Your task to perform on an android device: What's the weather going to be tomorrow? Image 0: 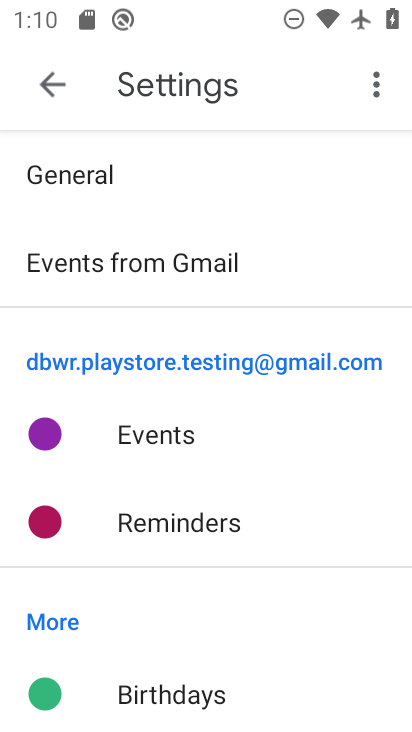
Step 0: press home button
Your task to perform on an android device: What's the weather going to be tomorrow? Image 1: 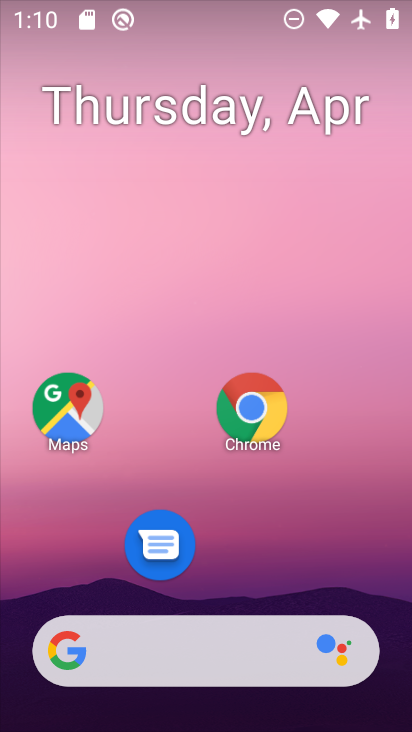
Step 1: click (246, 406)
Your task to perform on an android device: What's the weather going to be tomorrow? Image 2: 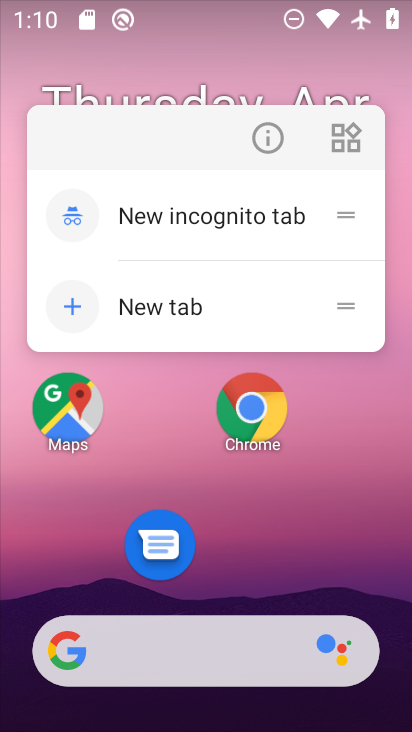
Step 2: click (250, 411)
Your task to perform on an android device: What's the weather going to be tomorrow? Image 3: 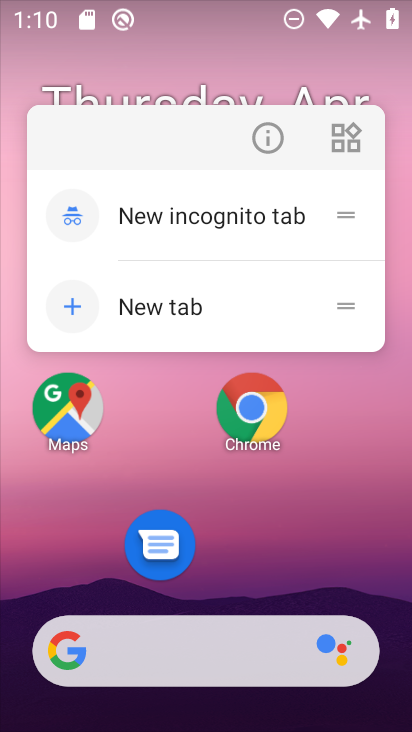
Step 3: drag from (352, 483) to (287, 18)
Your task to perform on an android device: What's the weather going to be tomorrow? Image 4: 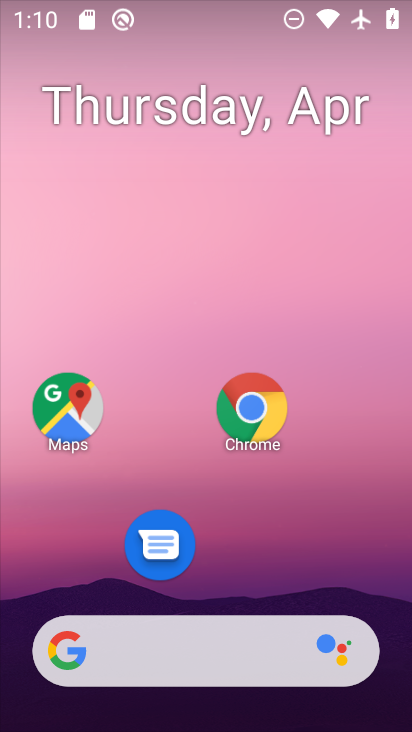
Step 4: drag from (324, 533) to (327, 170)
Your task to perform on an android device: What's the weather going to be tomorrow? Image 5: 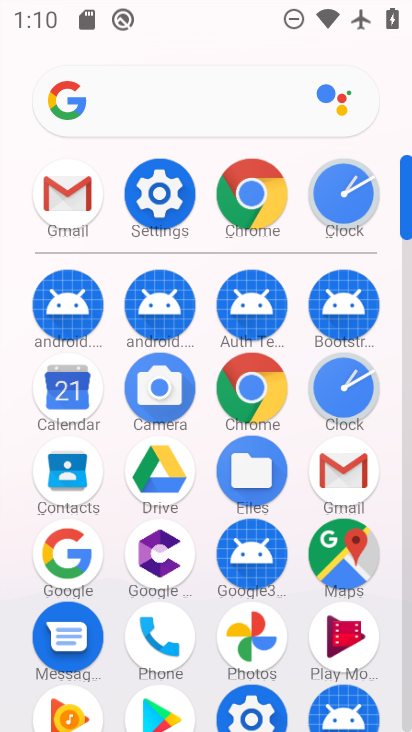
Step 5: click (246, 391)
Your task to perform on an android device: What's the weather going to be tomorrow? Image 6: 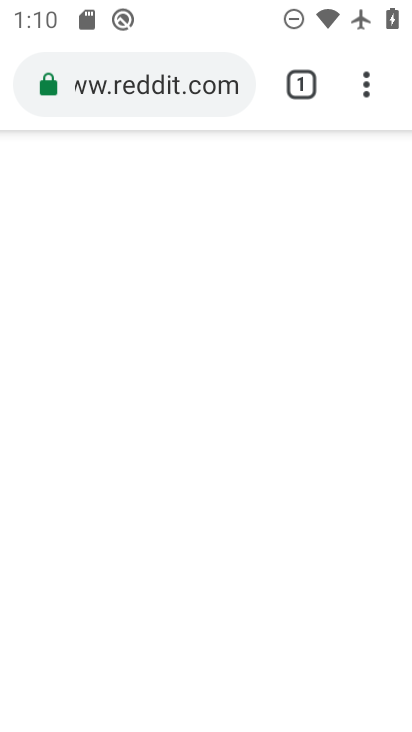
Step 6: click (195, 86)
Your task to perform on an android device: What's the weather going to be tomorrow? Image 7: 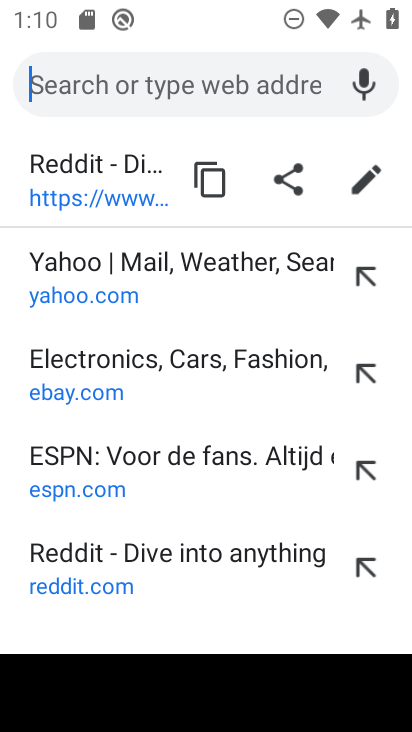
Step 7: type "weather"
Your task to perform on an android device: What's the weather going to be tomorrow? Image 8: 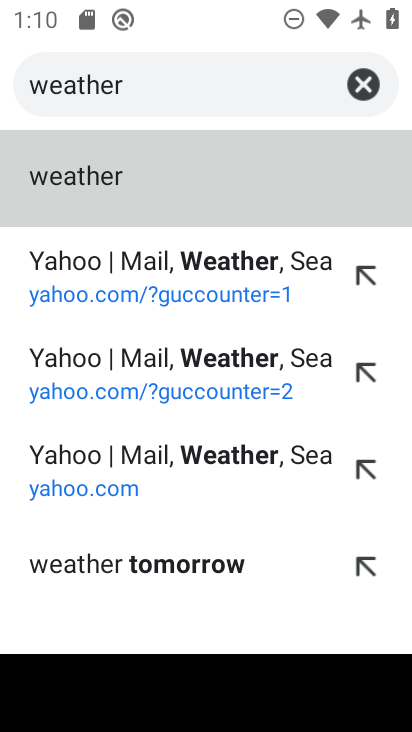
Step 8: click (85, 169)
Your task to perform on an android device: What's the weather going to be tomorrow? Image 9: 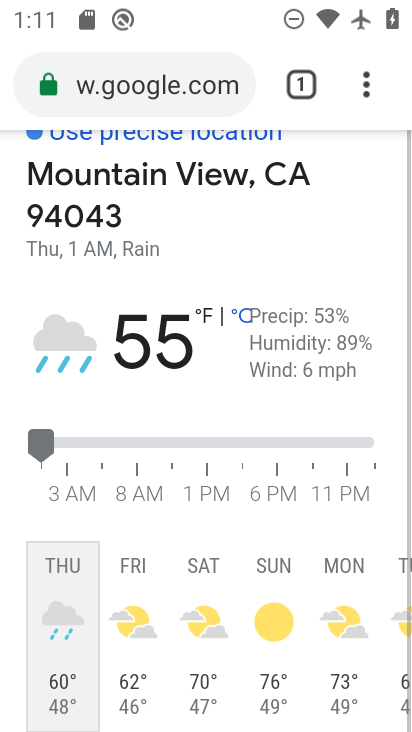
Step 9: drag from (234, 428) to (182, 211)
Your task to perform on an android device: What's the weather going to be tomorrow? Image 10: 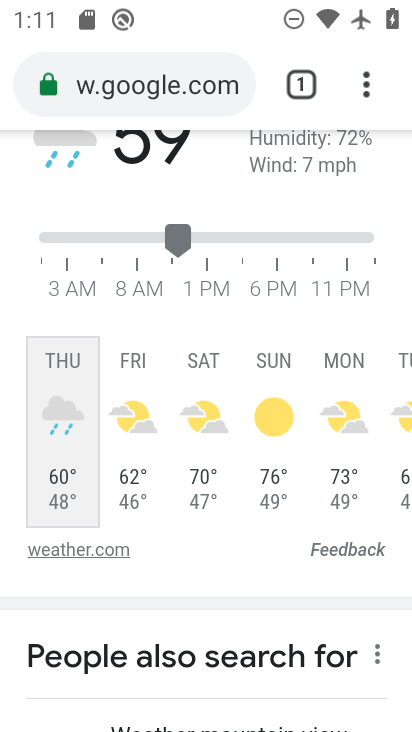
Step 10: click (142, 409)
Your task to perform on an android device: What's the weather going to be tomorrow? Image 11: 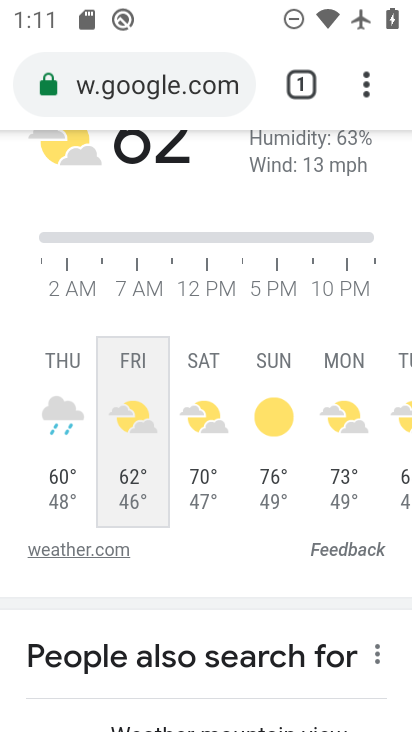
Step 11: task complete